Your task to perform on an android device: Turn off the flashlight Image 0: 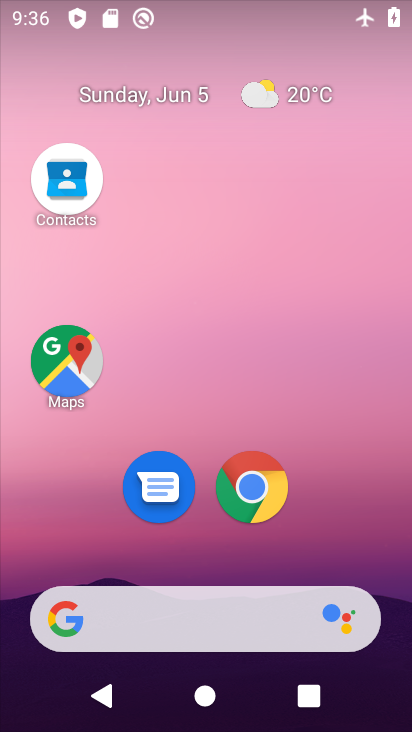
Step 0: drag from (278, 49) to (198, 633)
Your task to perform on an android device: Turn off the flashlight Image 1: 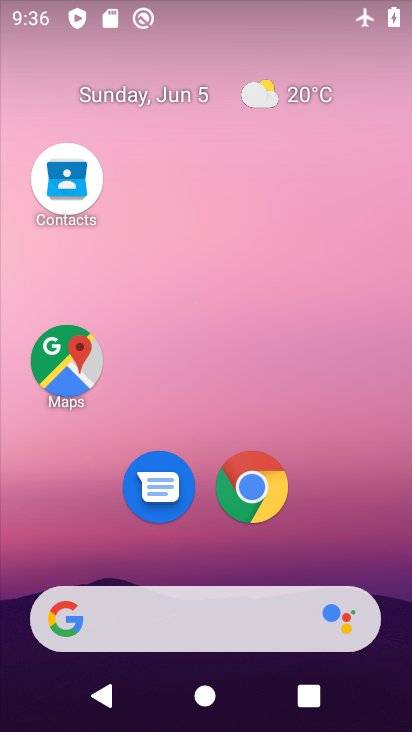
Step 1: task complete